Your task to perform on an android device: allow notifications from all sites in the chrome app Image 0: 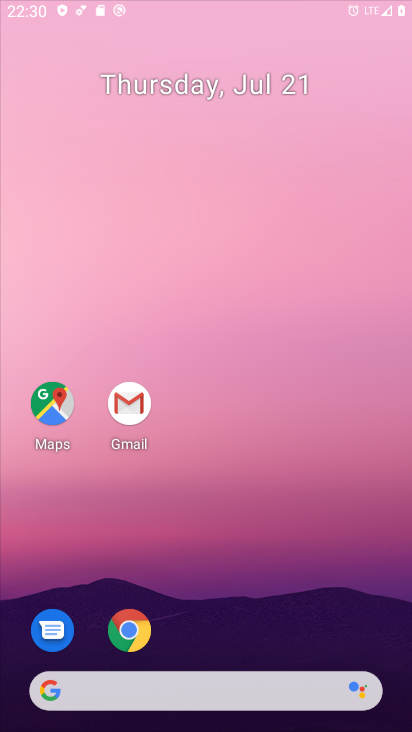
Step 0: click (182, 193)
Your task to perform on an android device: allow notifications from all sites in the chrome app Image 1: 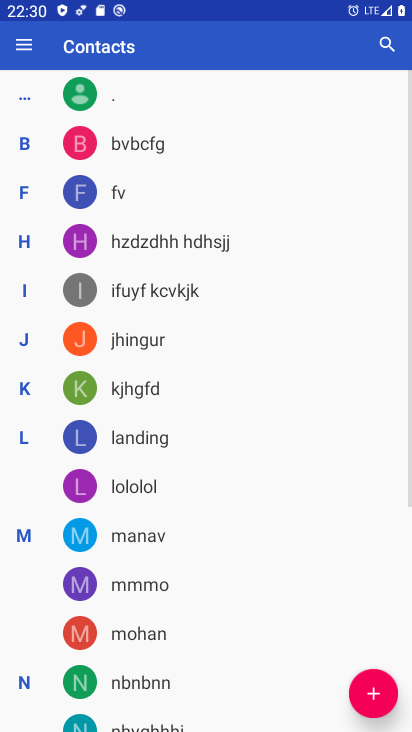
Step 1: press back button
Your task to perform on an android device: allow notifications from all sites in the chrome app Image 2: 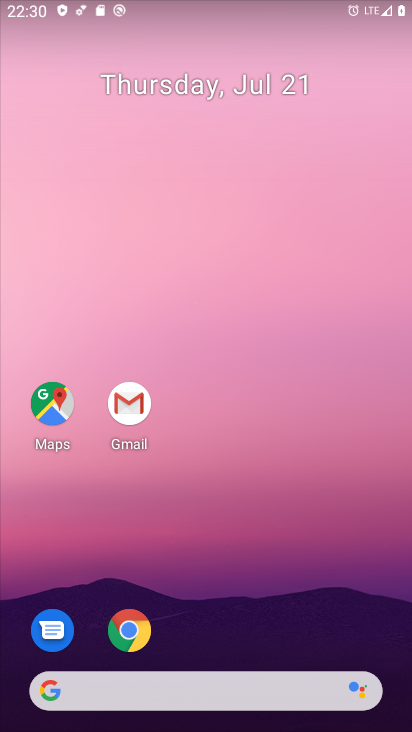
Step 2: drag from (238, 595) to (249, 28)
Your task to perform on an android device: allow notifications from all sites in the chrome app Image 3: 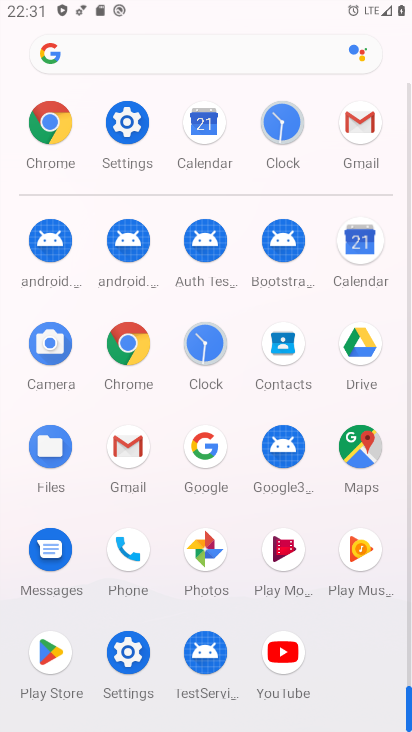
Step 3: click (49, 112)
Your task to perform on an android device: allow notifications from all sites in the chrome app Image 4: 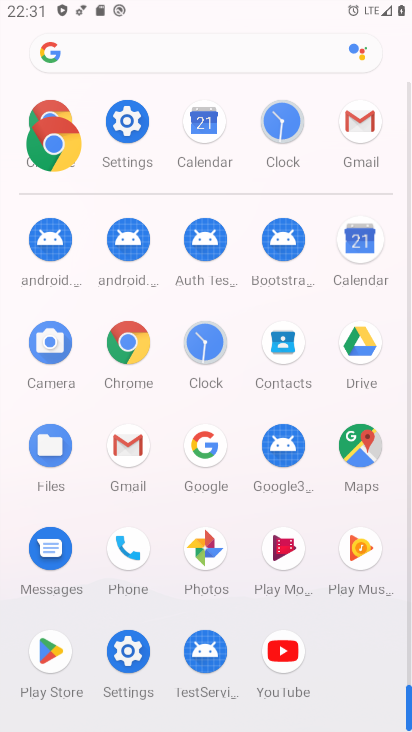
Step 4: click (49, 112)
Your task to perform on an android device: allow notifications from all sites in the chrome app Image 5: 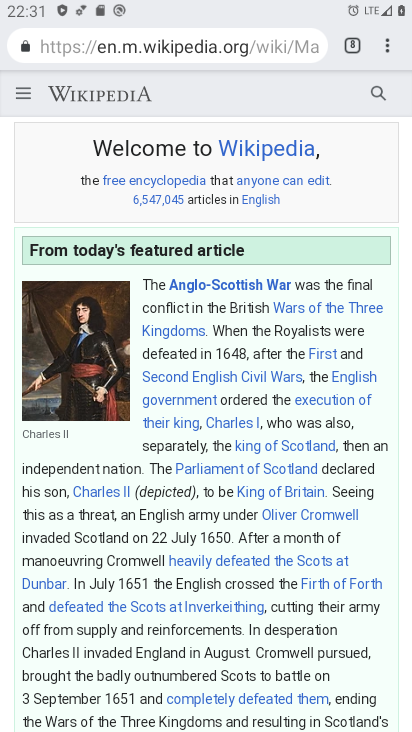
Step 5: drag from (381, 50) to (222, 88)
Your task to perform on an android device: allow notifications from all sites in the chrome app Image 6: 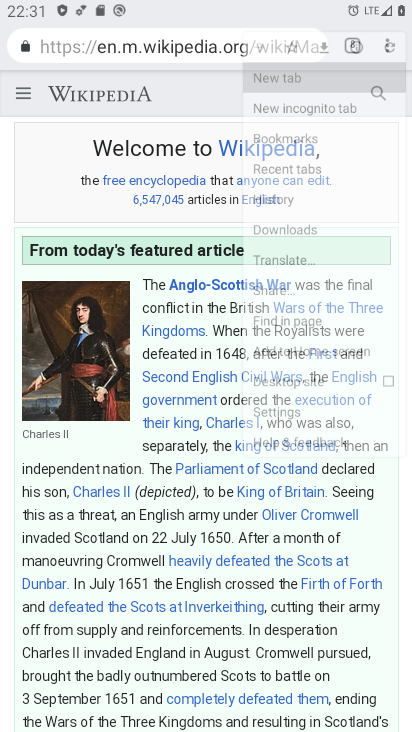
Step 6: click (227, 92)
Your task to perform on an android device: allow notifications from all sites in the chrome app Image 7: 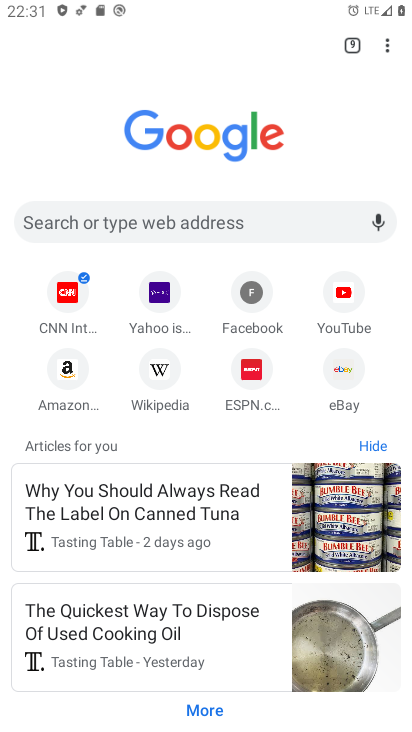
Step 7: drag from (389, 45) to (232, 387)
Your task to perform on an android device: allow notifications from all sites in the chrome app Image 8: 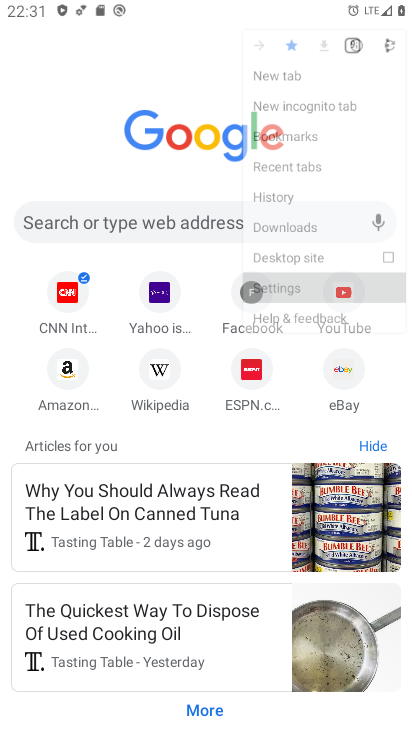
Step 8: click (233, 388)
Your task to perform on an android device: allow notifications from all sites in the chrome app Image 9: 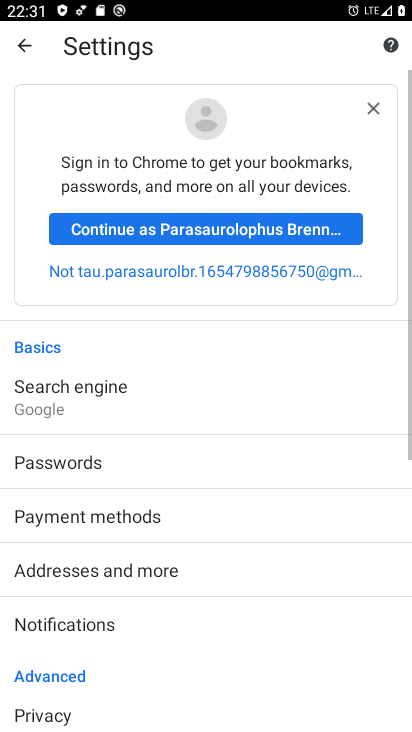
Step 9: drag from (97, 518) to (97, 100)
Your task to perform on an android device: allow notifications from all sites in the chrome app Image 10: 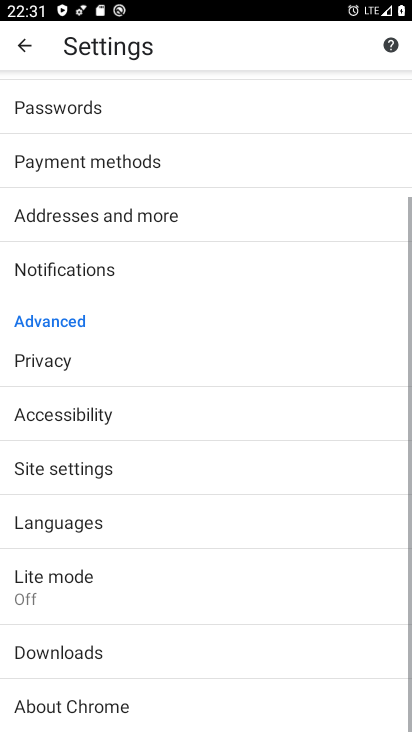
Step 10: drag from (144, 386) to (149, 188)
Your task to perform on an android device: allow notifications from all sites in the chrome app Image 11: 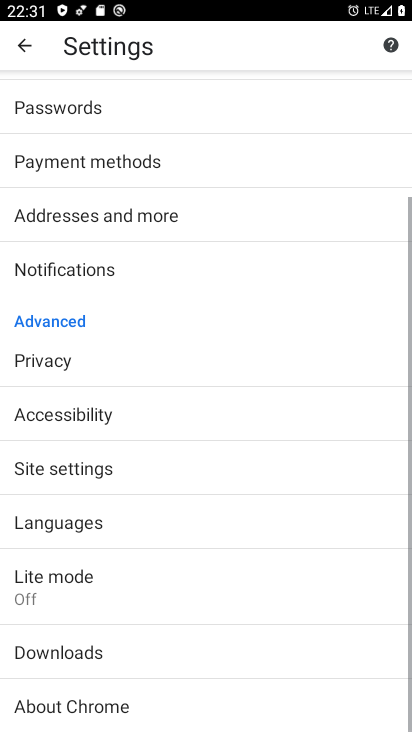
Step 11: drag from (184, 177) to (185, 472)
Your task to perform on an android device: allow notifications from all sites in the chrome app Image 12: 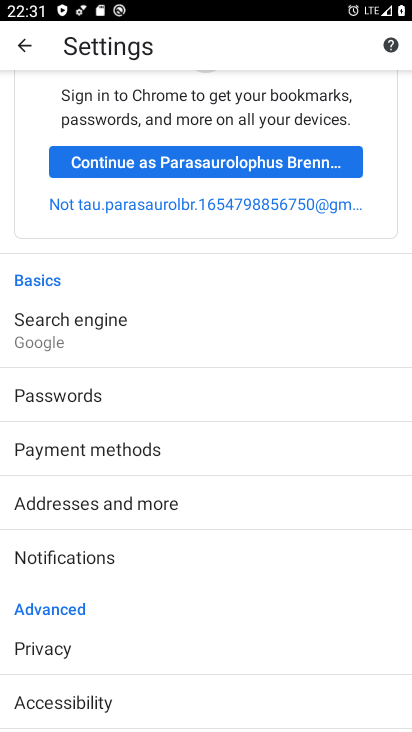
Step 12: click (234, 484)
Your task to perform on an android device: allow notifications from all sites in the chrome app Image 13: 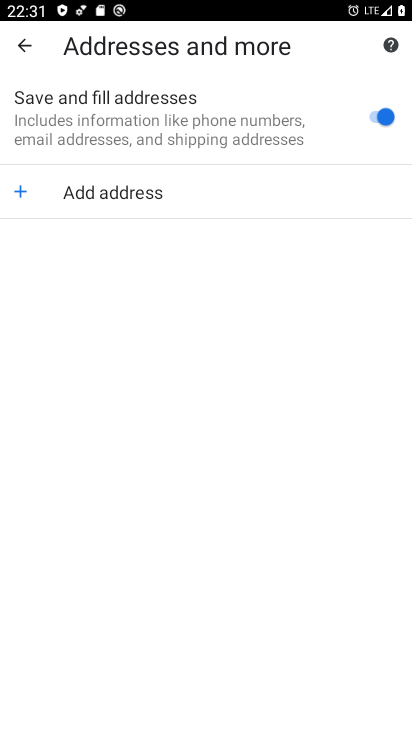
Step 13: click (20, 51)
Your task to perform on an android device: allow notifications from all sites in the chrome app Image 14: 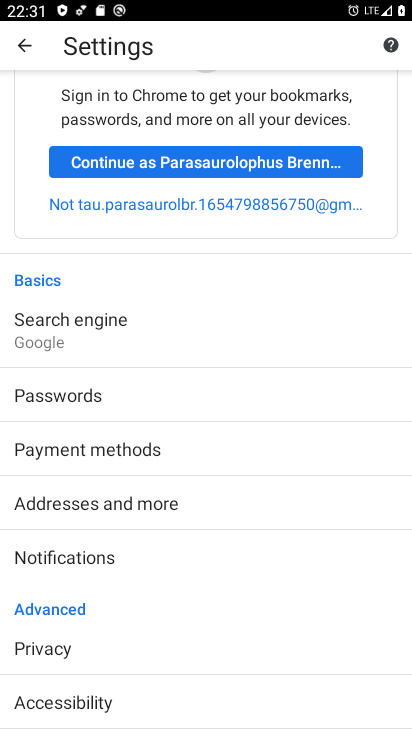
Step 14: drag from (119, 612) to (131, 278)
Your task to perform on an android device: allow notifications from all sites in the chrome app Image 15: 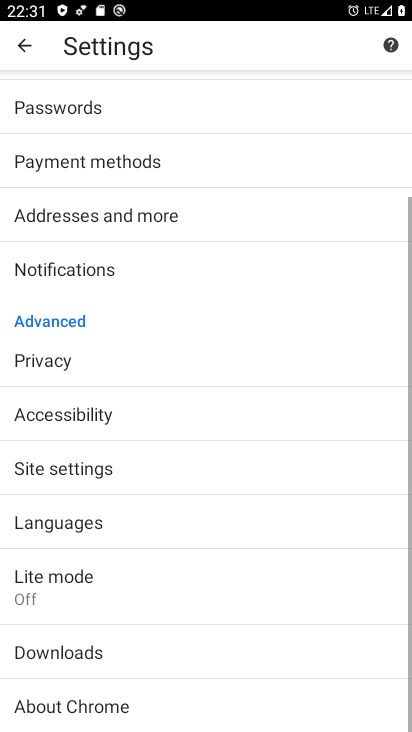
Step 15: drag from (175, 423) to (198, 254)
Your task to perform on an android device: allow notifications from all sites in the chrome app Image 16: 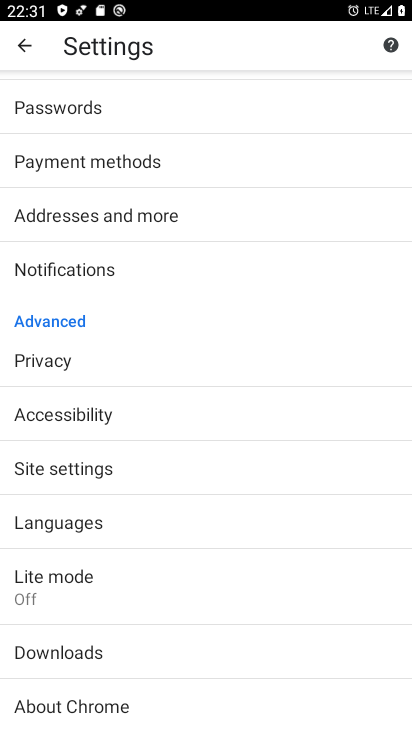
Step 16: drag from (126, 287) to (156, 540)
Your task to perform on an android device: allow notifications from all sites in the chrome app Image 17: 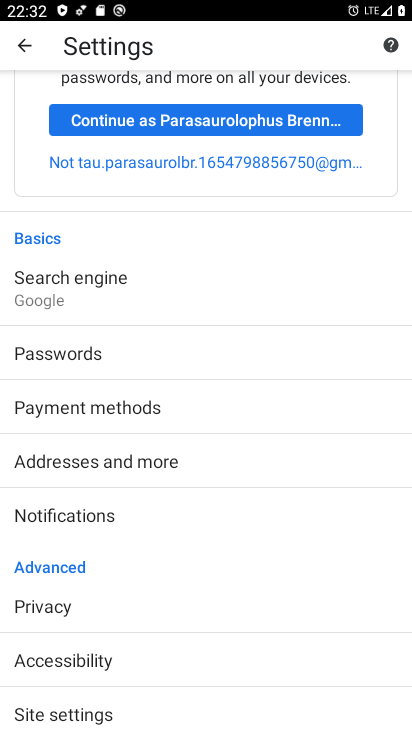
Step 17: drag from (119, 250) to (184, 522)
Your task to perform on an android device: allow notifications from all sites in the chrome app Image 18: 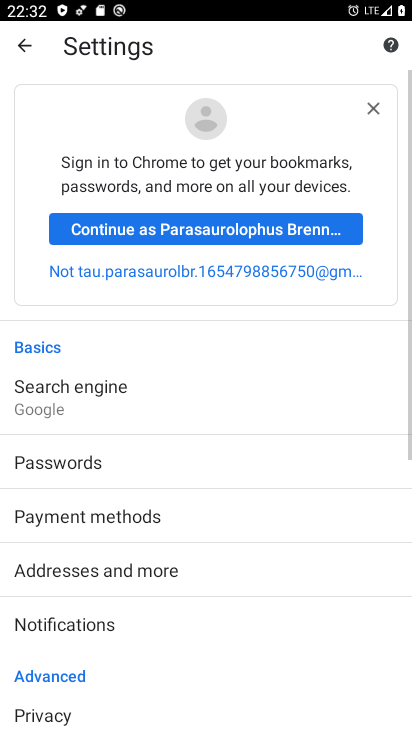
Step 18: click (371, 107)
Your task to perform on an android device: allow notifications from all sites in the chrome app Image 19: 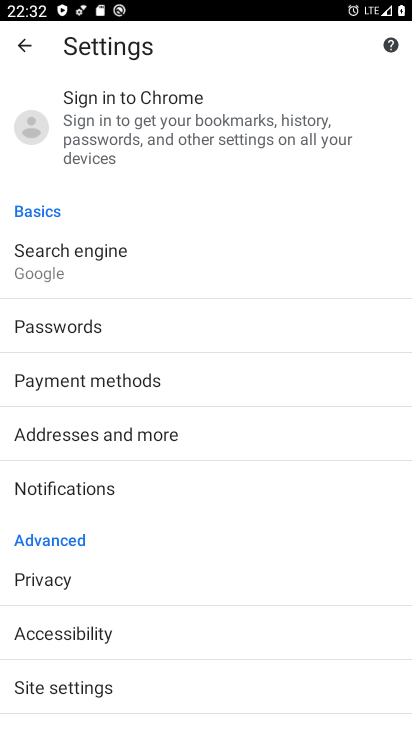
Step 19: click (75, 496)
Your task to perform on an android device: allow notifications from all sites in the chrome app Image 20: 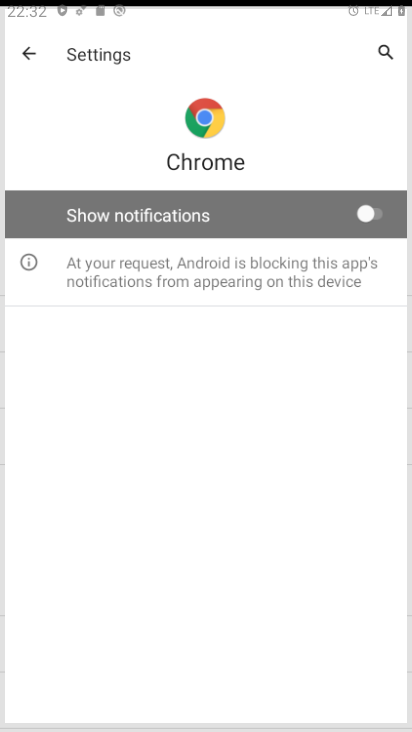
Step 20: drag from (66, 593) to (66, 338)
Your task to perform on an android device: allow notifications from all sites in the chrome app Image 21: 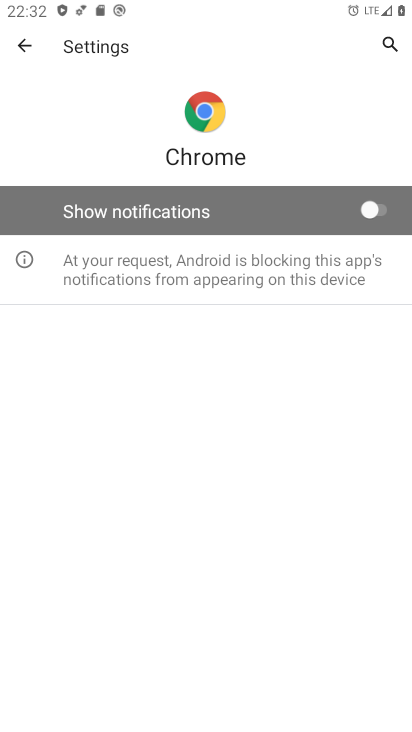
Step 21: click (365, 200)
Your task to perform on an android device: allow notifications from all sites in the chrome app Image 22: 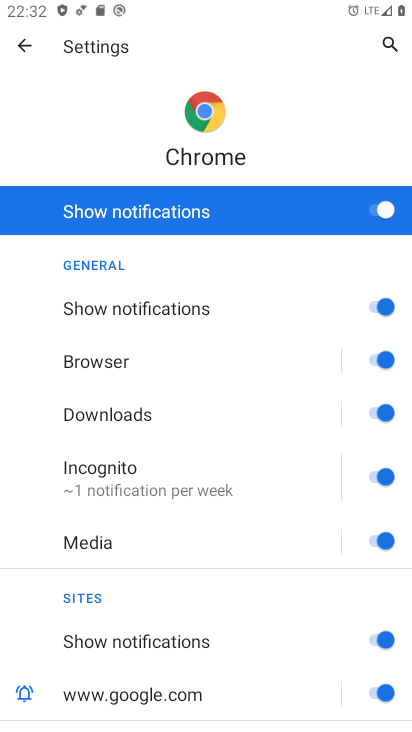
Step 22: task complete